Your task to perform on an android device: open a new tab in the chrome app Image 0: 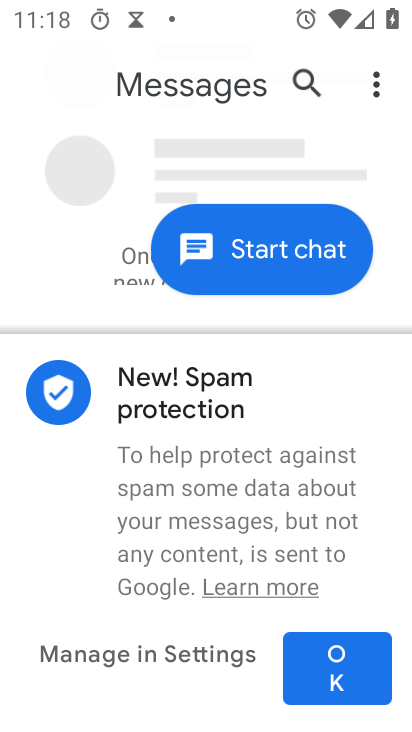
Step 0: press home button
Your task to perform on an android device: open a new tab in the chrome app Image 1: 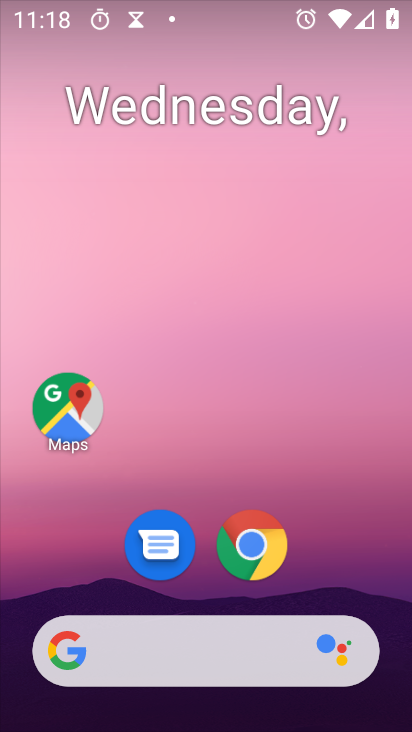
Step 1: click (258, 548)
Your task to perform on an android device: open a new tab in the chrome app Image 2: 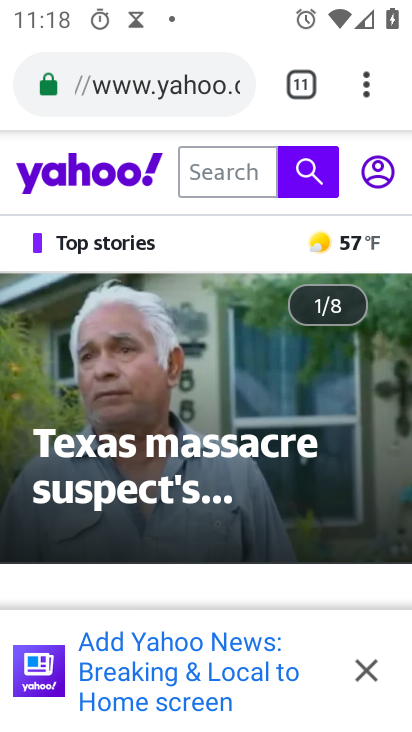
Step 2: task complete